Your task to perform on an android device: turn on data saver in the chrome app Image 0: 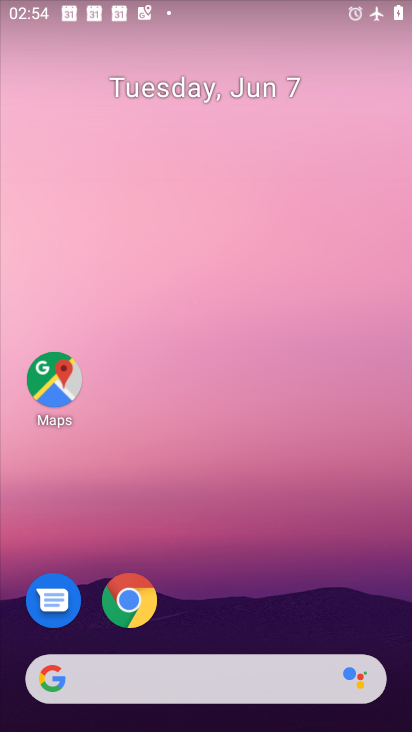
Step 0: click (123, 590)
Your task to perform on an android device: turn on data saver in the chrome app Image 1: 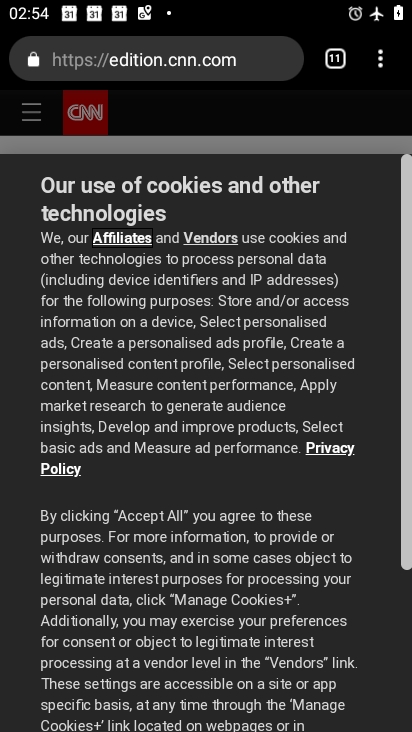
Step 1: click (383, 63)
Your task to perform on an android device: turn on data saver in the chrome app Image 2: 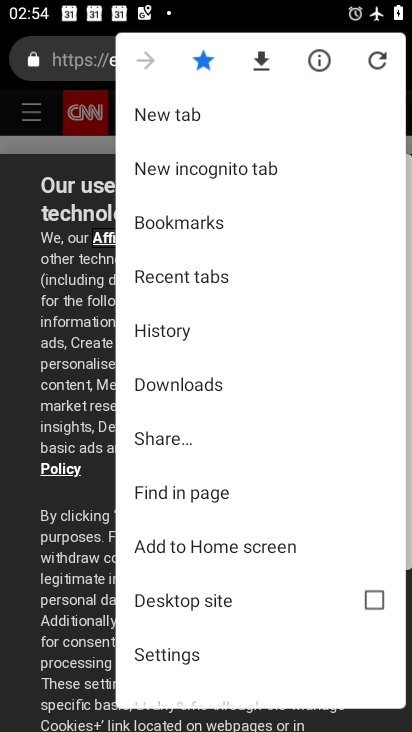
Step 2: click (175, 656)
Your task to perform on an android device: turn on data saver in the chrome app Image 3: 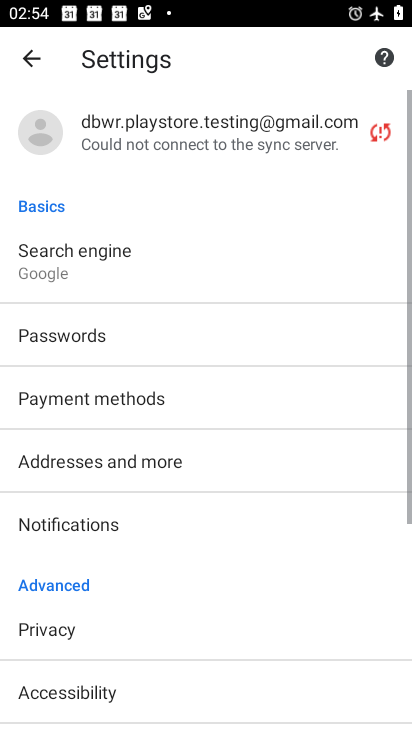
Step 3: drag from (77, 663) to (97, 326)
Your task to perform on an android device: turn on data saver in the chrome app Image 4: 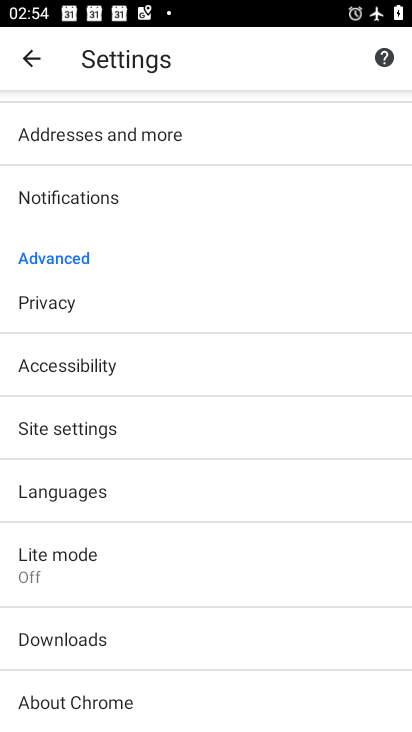
Step 4: click (60, 555)
Your task to perform on an android device: turn on data saver in the chrome app Image 5: 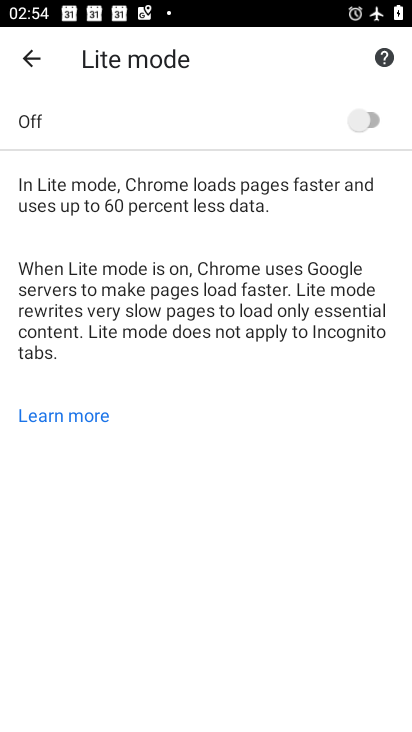
Step 5: click (378, 118)
Your task to perform on an android device: turn on data saver in the chrome app Image 6: 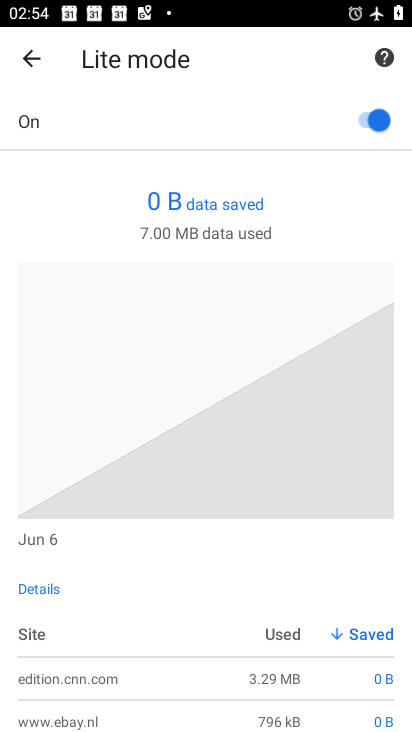
Step 6: task complete